Your task to perform on an android device: How big is the sun? Image 0: 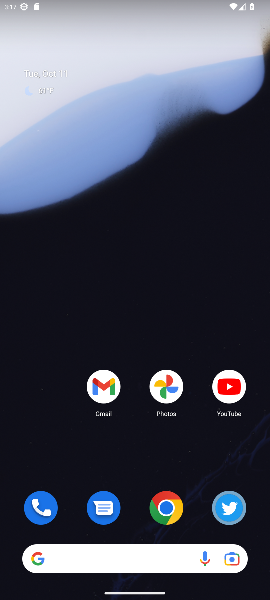
Step 0: click (167, 507)
Your task to perform on an android device: How big is the sun? Image 1: 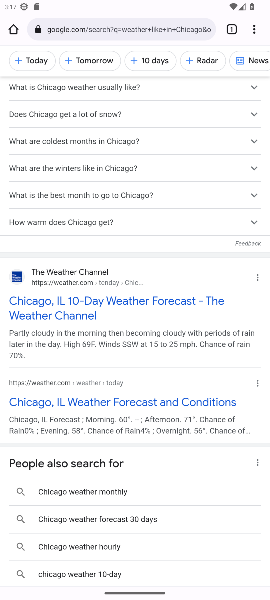
Step 1: click (125, 28)
Your task to perform on an android device: How big is the sun? Image 2: 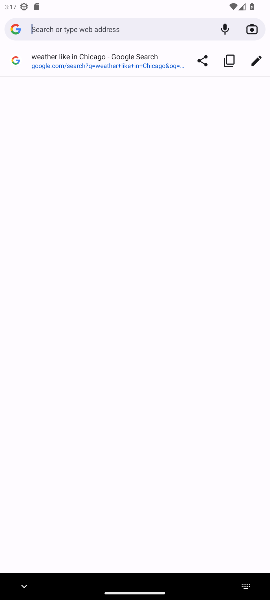
Step 2: type "How big is the sun"
Your task to perform on an android device: How big is the sun? Image 3: 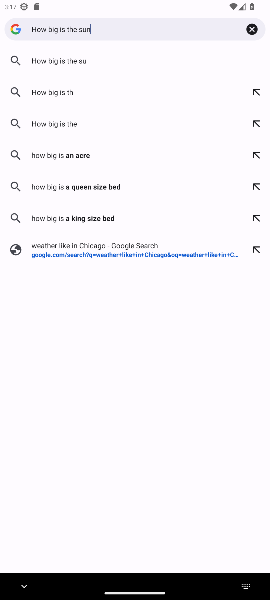
Step 3: type ""
Your task to perform on an android device: How big is the sun? Image 4: 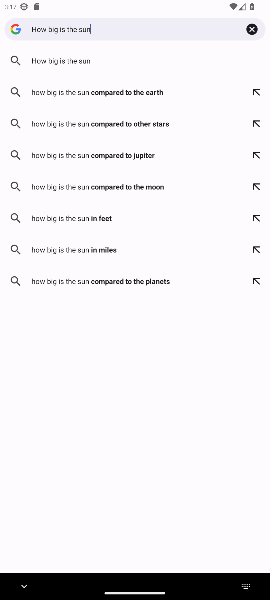
Step 4: click (78, 65)
Your task to perform on an android device: How big is the sun? Image 5: 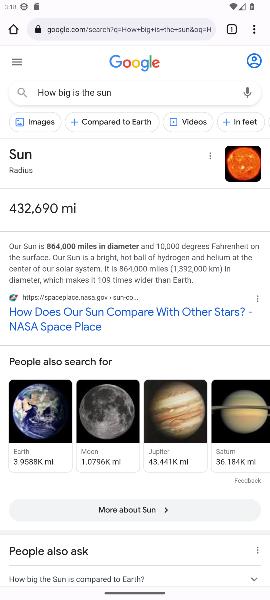
Step 5: task complete